Your task to perform on an android device: Search for sushi restaurants on Maps Image 0: 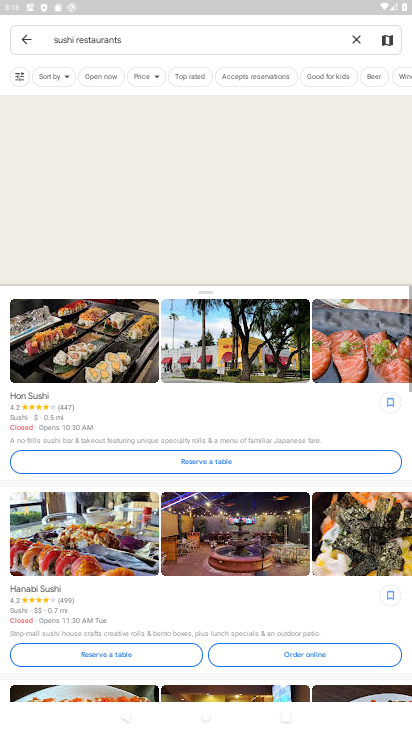
Step 0: press home button
Your task to perform on an android device: Search for sushi restaurants on Maps Image 1: 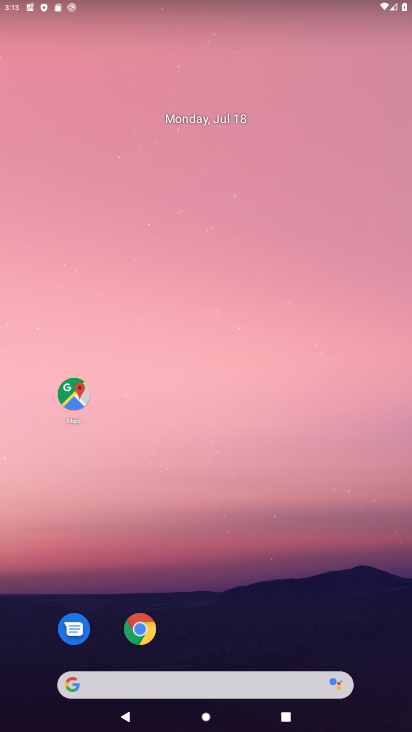
Step 1: click (85, 395)
Your task to perform on an android device: Search for sushi restaurants on Maps Image 2: 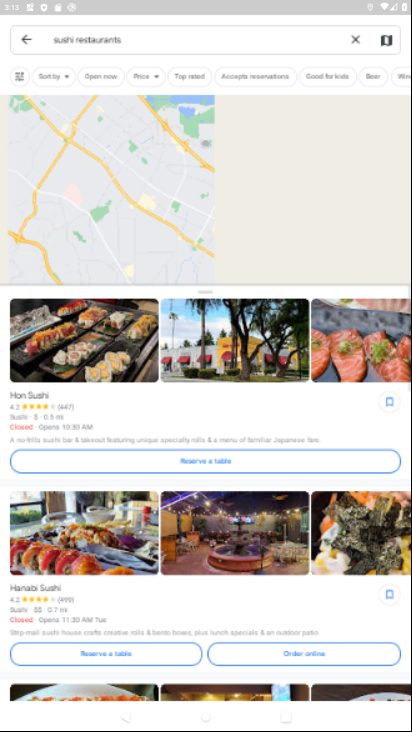
Step 2: click (225, 40)
Your task to perform on an android device: Search for sushi restaurants on Maps Image 3: 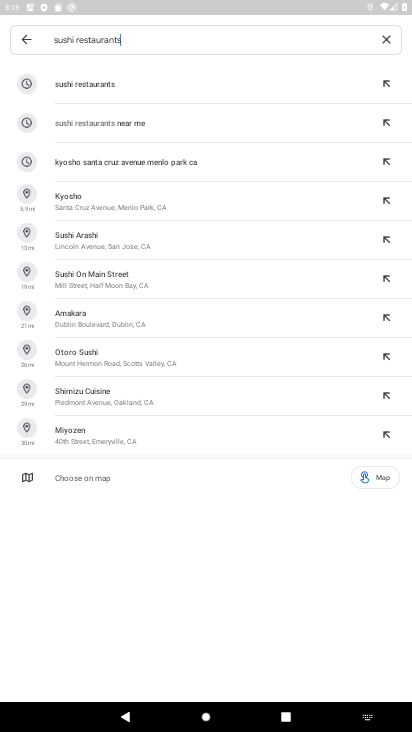
Step 3: click (383, 37)
Your task to perform on an android device: Search for sushi restaurants on Maps Image 4: 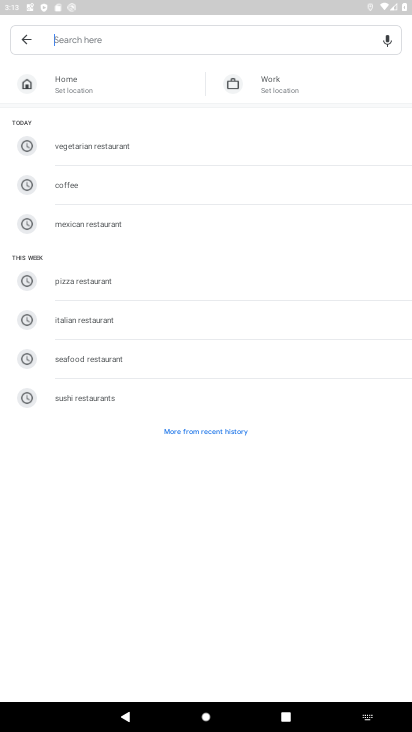
Step 4: type "sushi restaurants"
Your task to perform on an android device: Search for sushi restaurants on Maps Image 5: 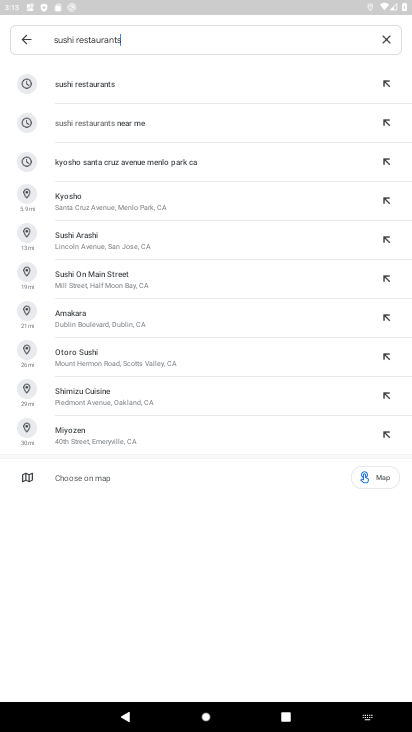
Step 5: click (76, 79)
Your task to perform on an android device: Search for sushi restaurants on Maps Image 6: 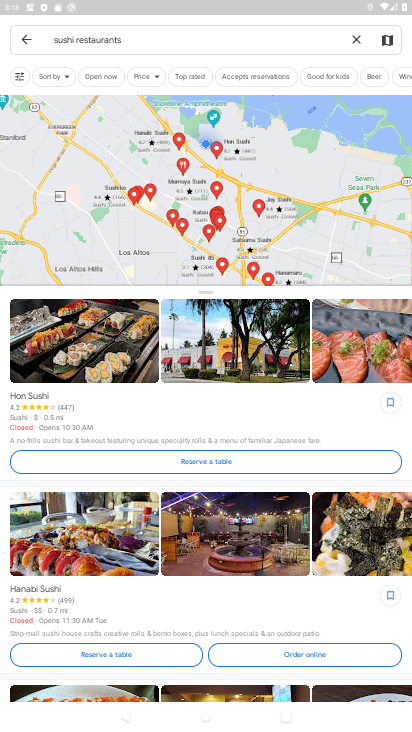
Step 6: task complete